Your task to perform on an android device: turn pop-ups off in chrome Image 0: 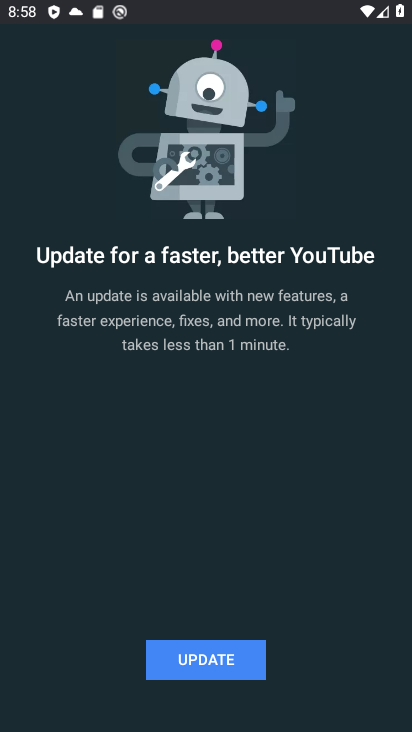
Step 0: press home button
Your task to perform on an android device: turn pop-ups off in chrome Image 1: 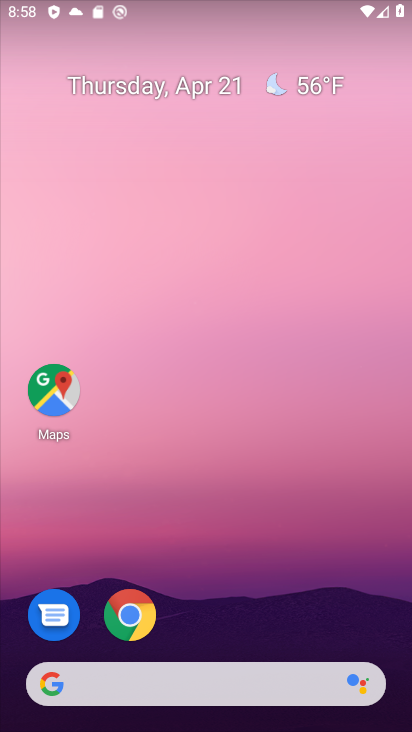
Step 1: click (131, 615)
Your task to perform on an android device: turn pop-ups off in chrome Image 2: 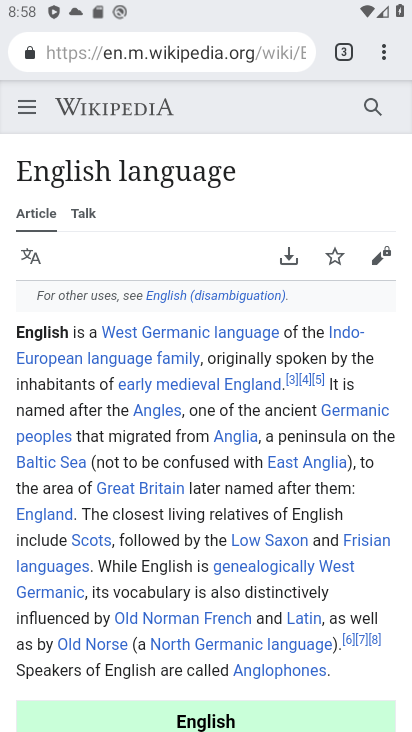
Step 2: click (381, 50)
Your task to perform on an android device: turn pop-ups off in chrome Image 3: 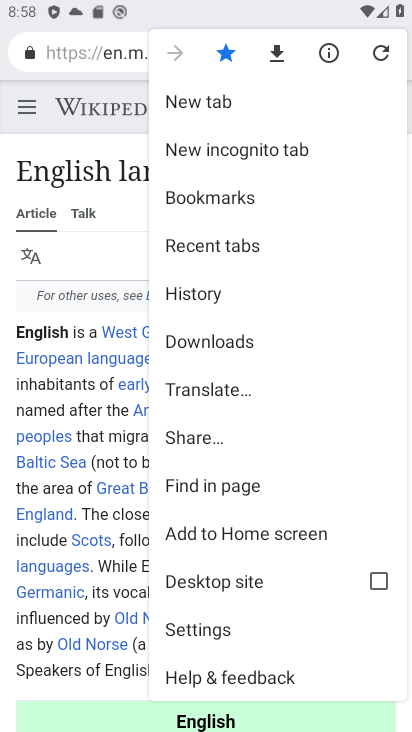
Step 3: click (212, 627)
Your task to perform on an android device: turn pop-ups off in chrome Image 4: 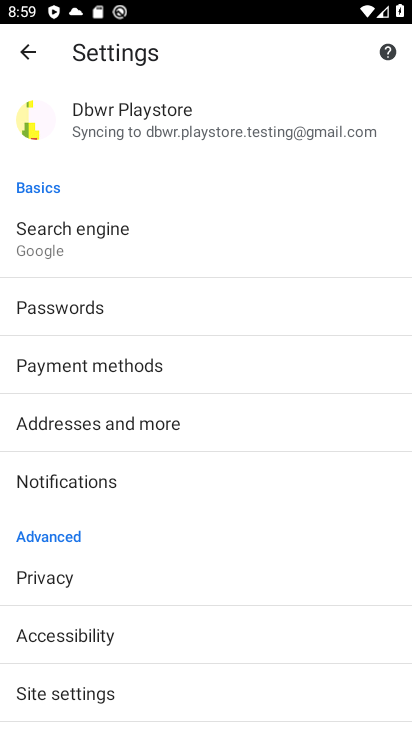
Step 4: click (63, 689)
Your task to perform on an android device: turn pop-ups off in chrome Image 5: 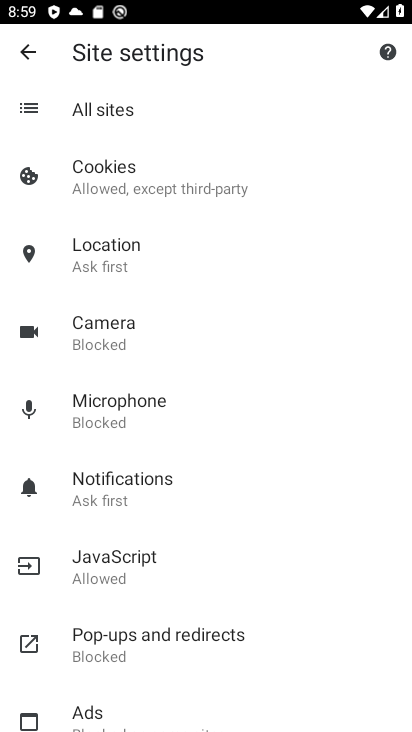
Step 5: click (108, 646)
Your task to perform on an android device: turn pop-ups off in chrome Image 6: 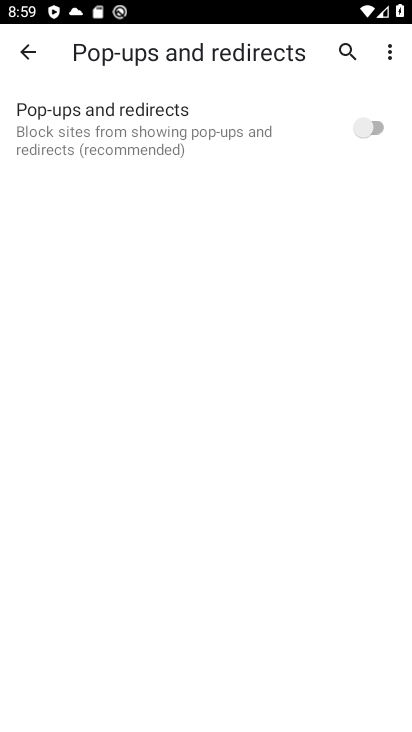
Step 6: task complete